Your task to perform on an android device: Play the last video I watched on Youtube Image 0: 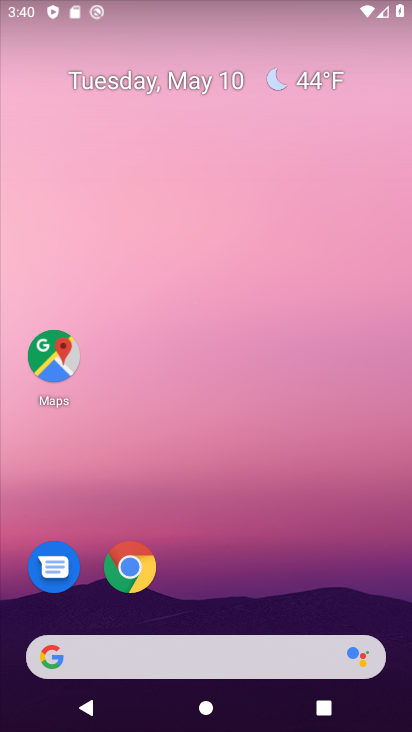
Step 0: drag from (247, 565) to (188, 54)
Your task to perform on an android device: Play the last video I watched on Youtube Image 1: 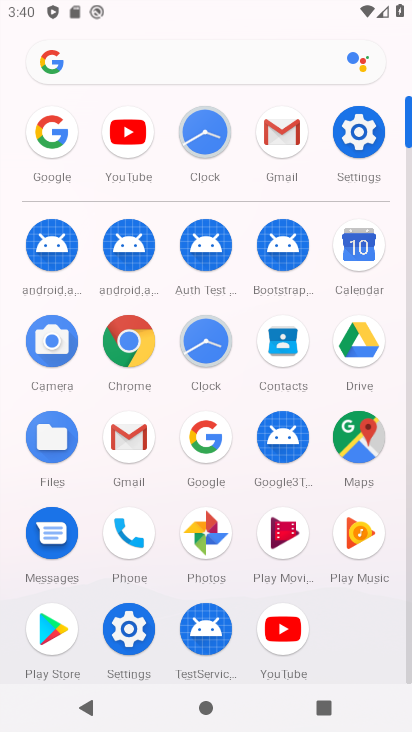
Step 1: click (128, 130)
Your task to perform on an android device: Play the last video I watched on Youtube Image 2: 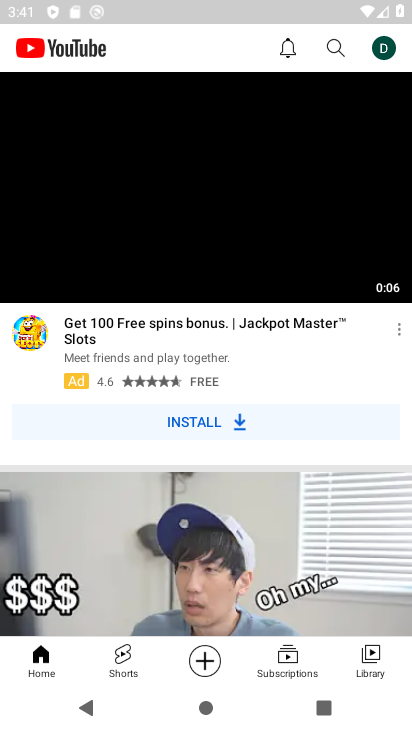
Step 2: click (372, 656)
Your task to perform on an android device: Play the last video I watched on Youtube Image 3: 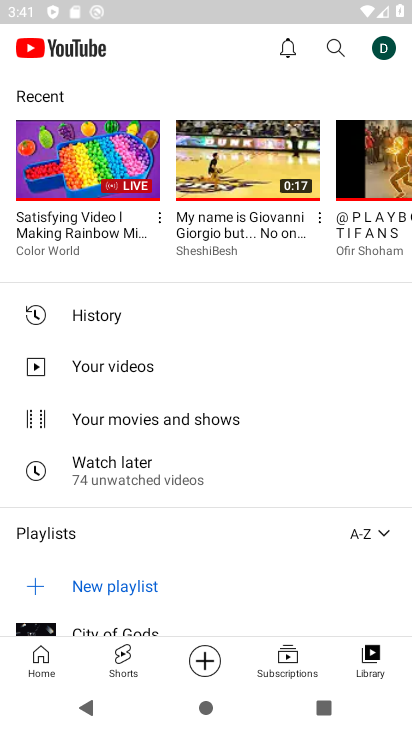
Step 3: click (86, 163)
Your task to perform on an android device: Play the last video I watched on Youtube Image 4: 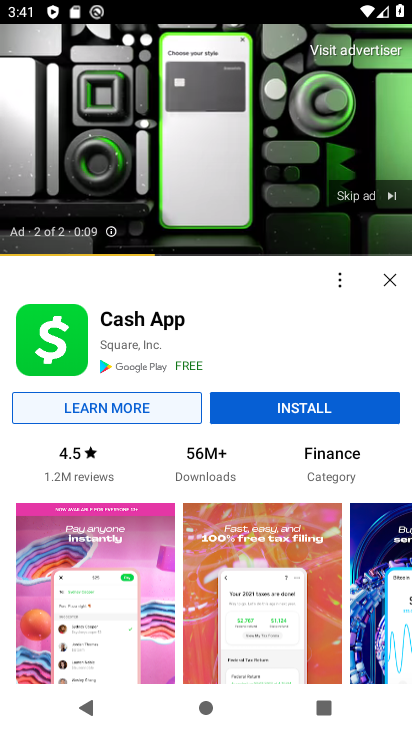
Step 4: click (375, 196)
Your task to perform on an android device: Play the last video I watched on Youtube Image 5: 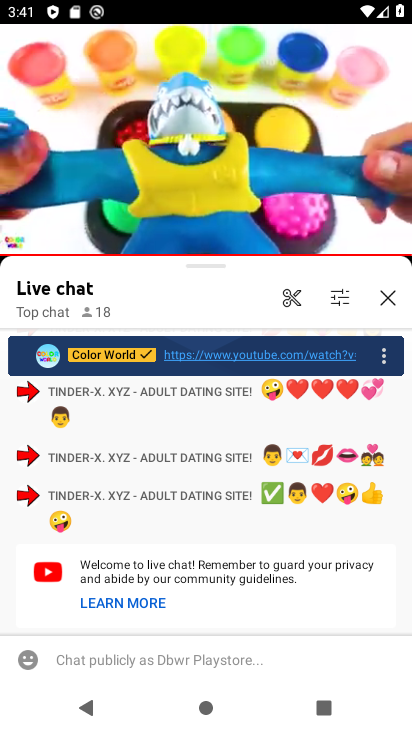
Step 5: task complete